Your task to perform on an android device: turn off improve location accuracy Image 0: 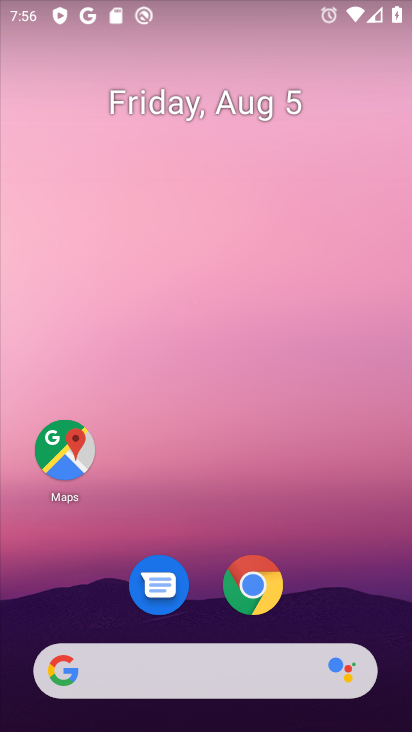
Step 0: drag from (330, 583) to (329, 16)
Your task to perform on an android device: turn off improve location accuracy Image 1: 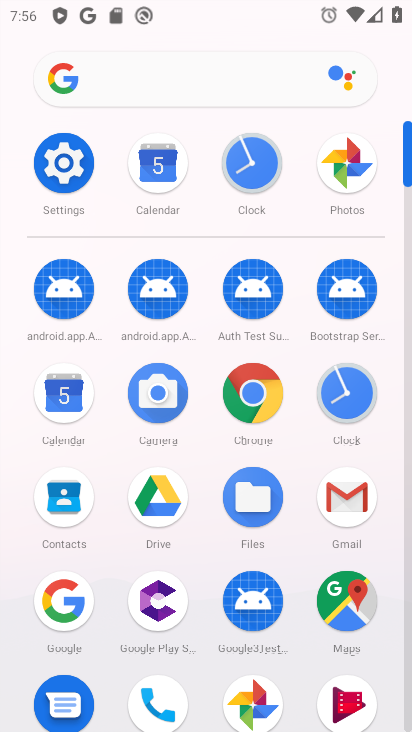
Step 1: click (74, 160)
Your task to perform on an android device: turn off improve location accuracy Image 2: 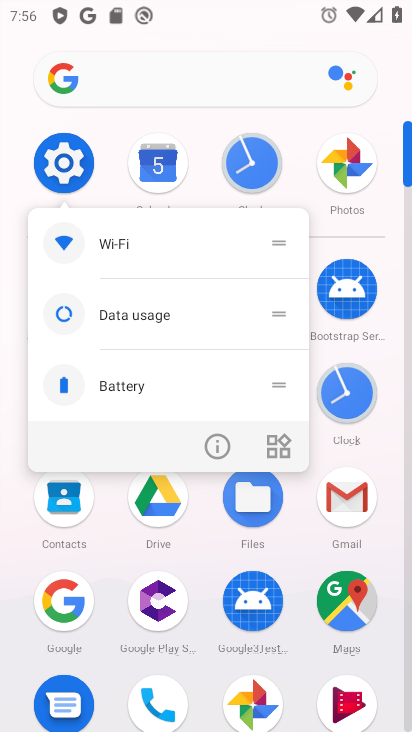
Step 2: click (65, 150)
Your task to perform on an android device: turn off improve location accuracy Image 3: 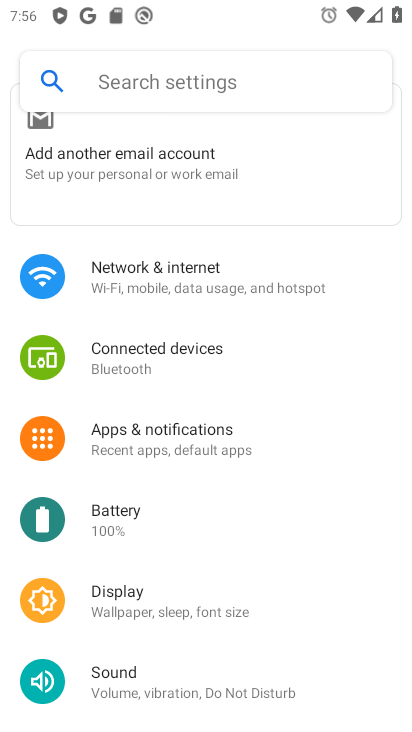
Step 3: drag from (187, 555) to (196, 143)
Your task to perform on an android device: turn off improve location accuracy Image 4: 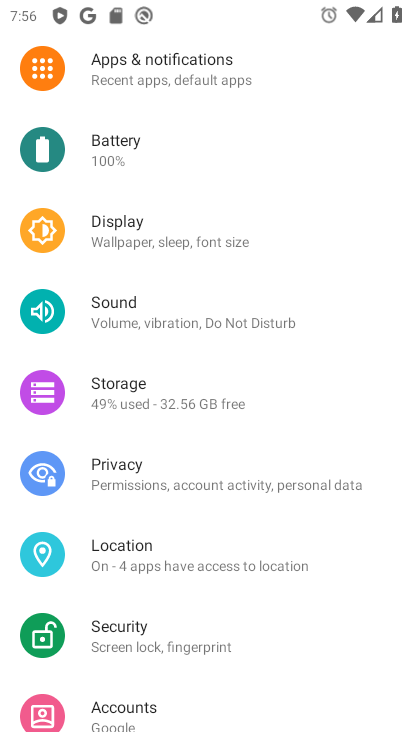
Step 4: click (195, 556)
Your task to perform on an android device: turn off improve location accuracy Image 5: 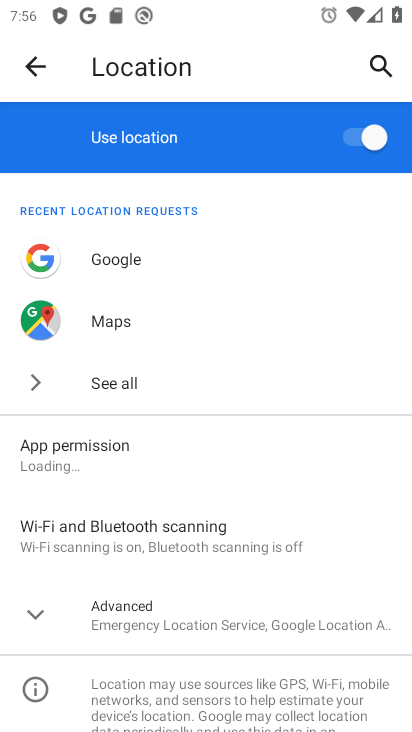
Step 5: drag from (252, 420) to (264, 298)
Your task to perform on an android device: turn off improve location accuracy Image 6: 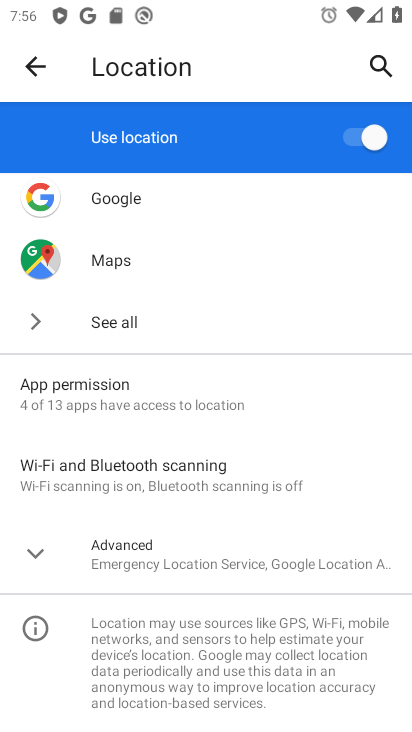
Step 6: click (37, 555)
Your task to perform on an android device: turn off improve location accuracy Image 7: 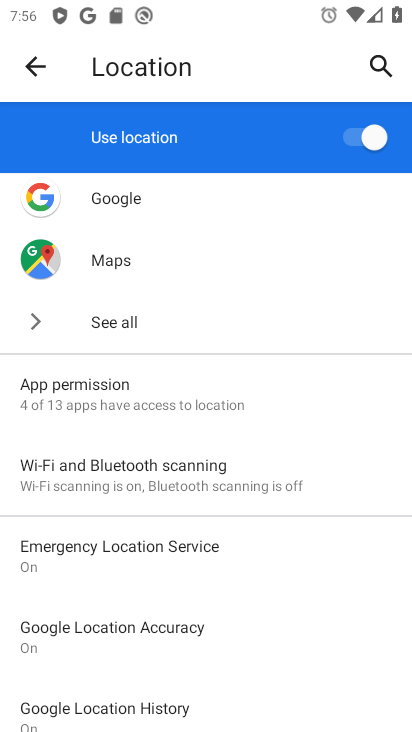
Step 7: click (195, 637)
Your task to perform on an android device: turn off improve location accuracy Image 8: 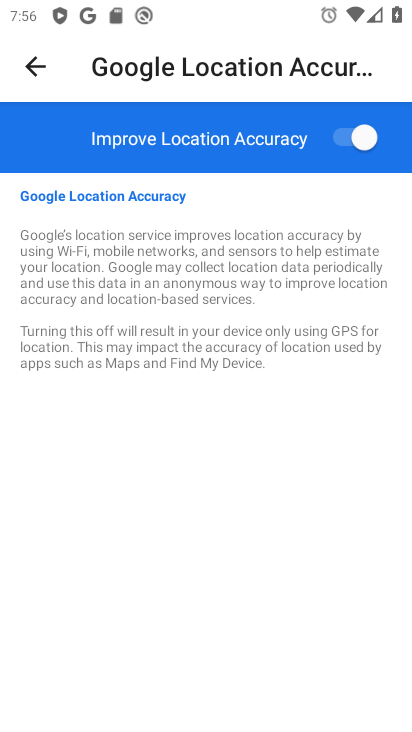
Step 8: click (361, 142)
Your task to perform on an android device: turn off improve location accuracy Image 9: 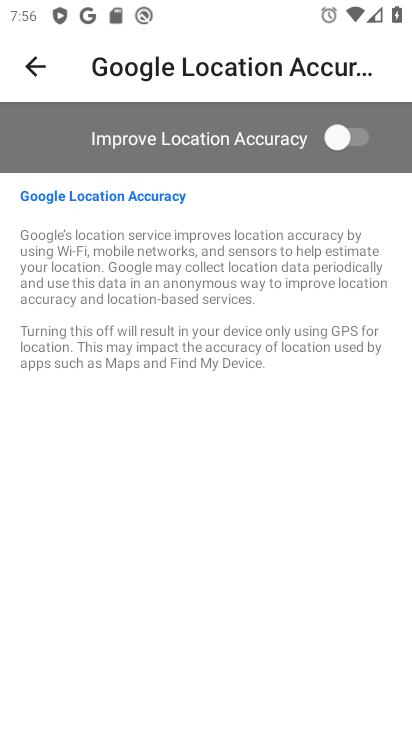
Step 9: task complete